Your task to perform on an android device: open chrome privacy settings Image 0: 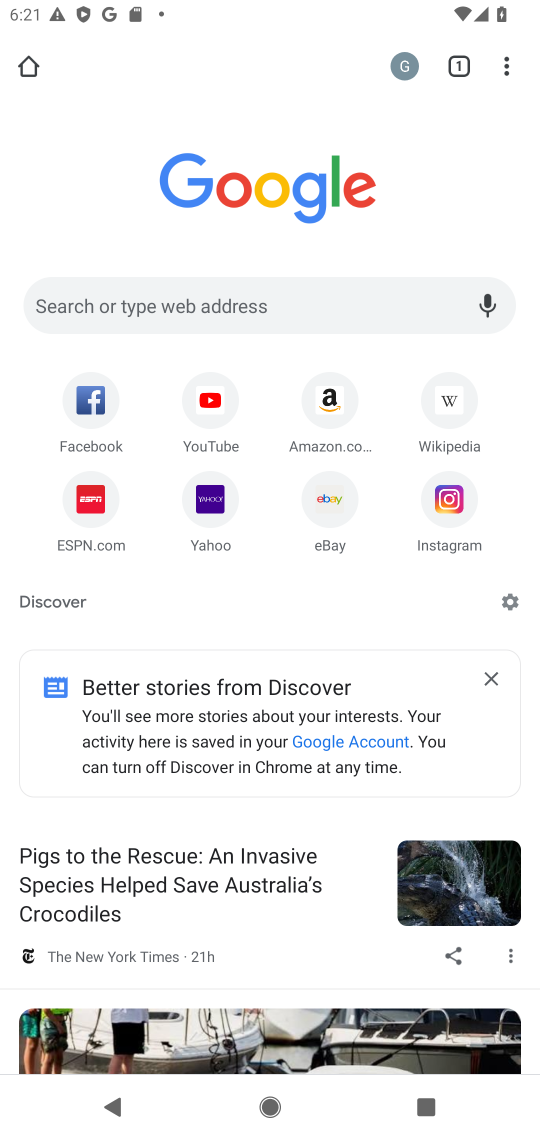
Step 0: press home button
Your task to perform on an android device: open chrome privacy settings Image 1: 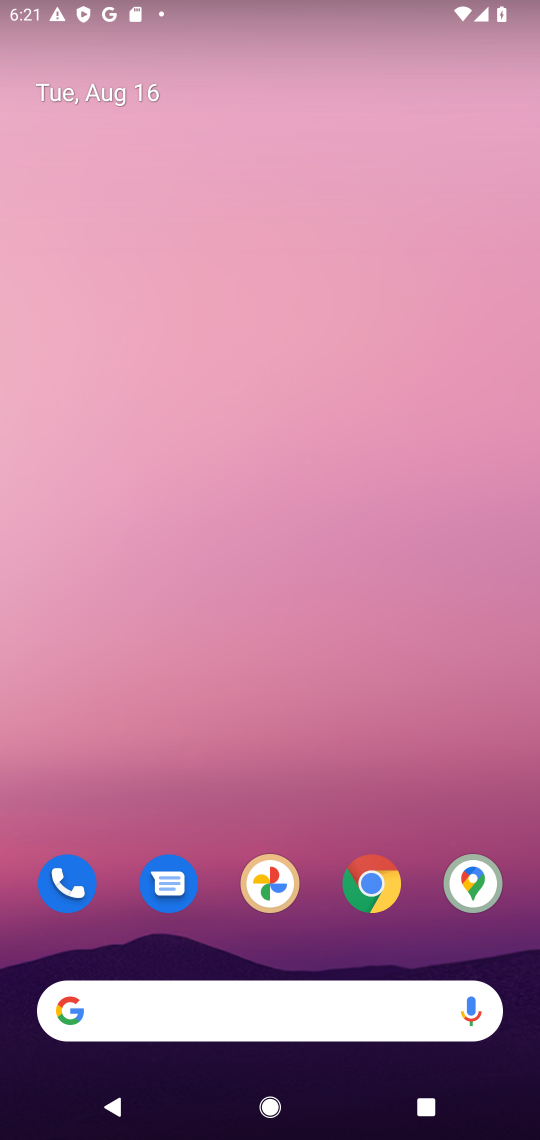
Step 1: drag from (226, 1017) to (250, 169)
Your task to perform on an android device: open chrome privacy settings Image 2: 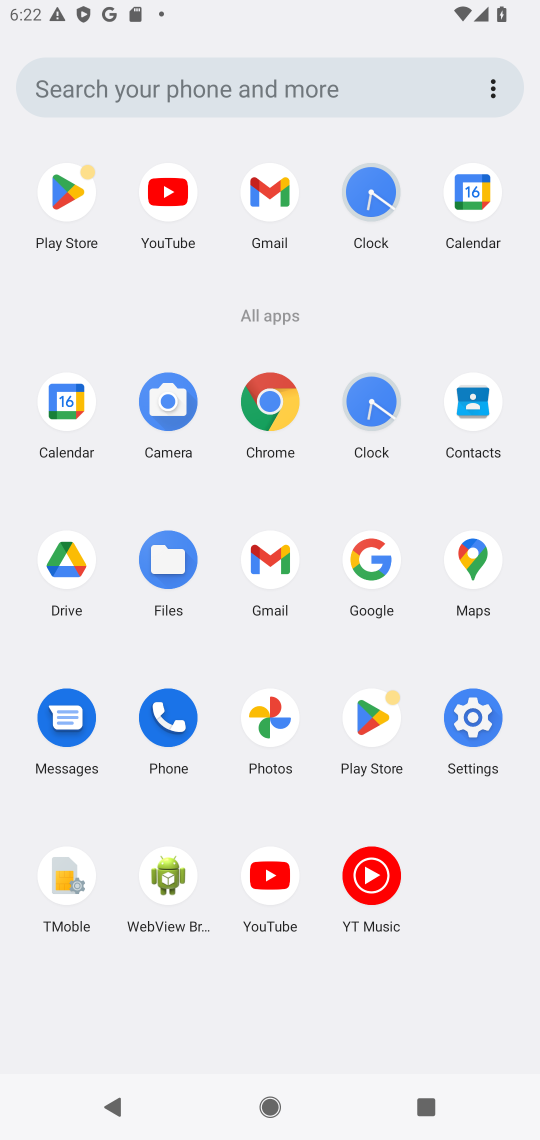
Step 2: click (268, 405)
Your task to perform on an android device: open chrome privacy settings Image 3: 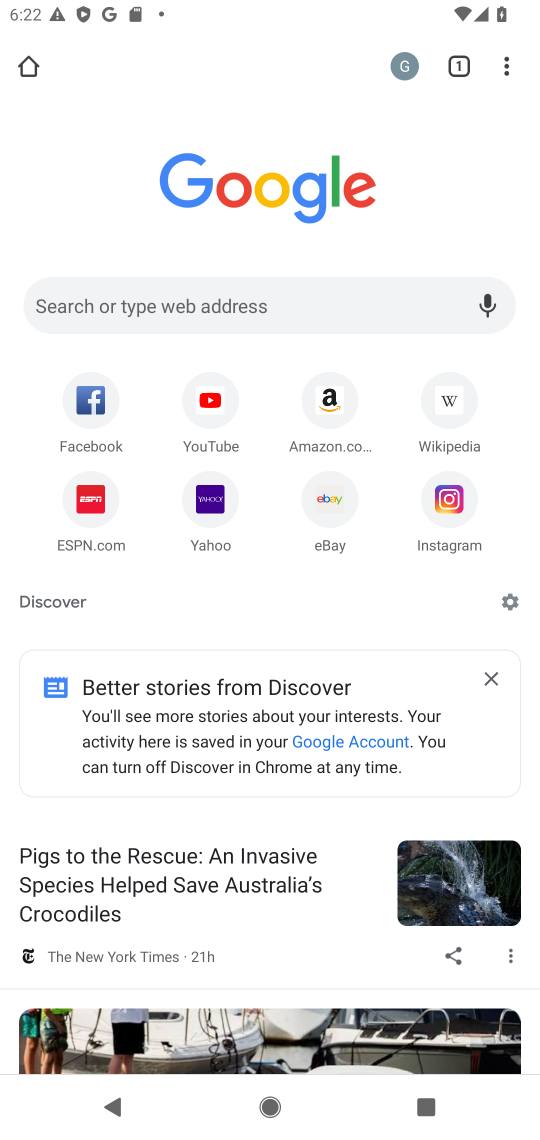
Step 3: click (512, 76)
Your task to perform on an android device: open chrome privacy settings Image 4: 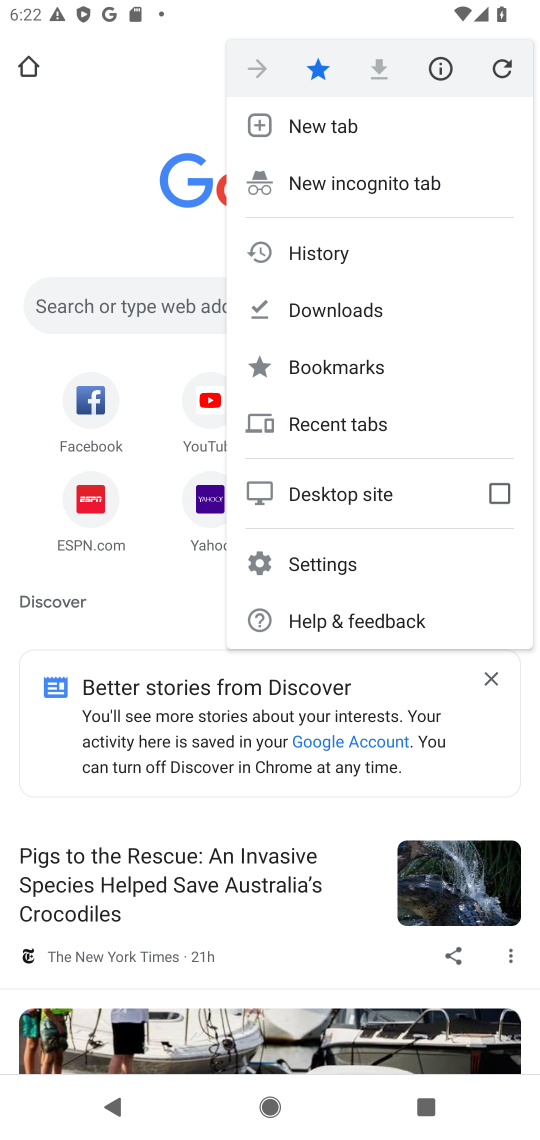
Step 4: click (338, 565)
Your task to perform on an android device: open chrome privacy settings Image 5: 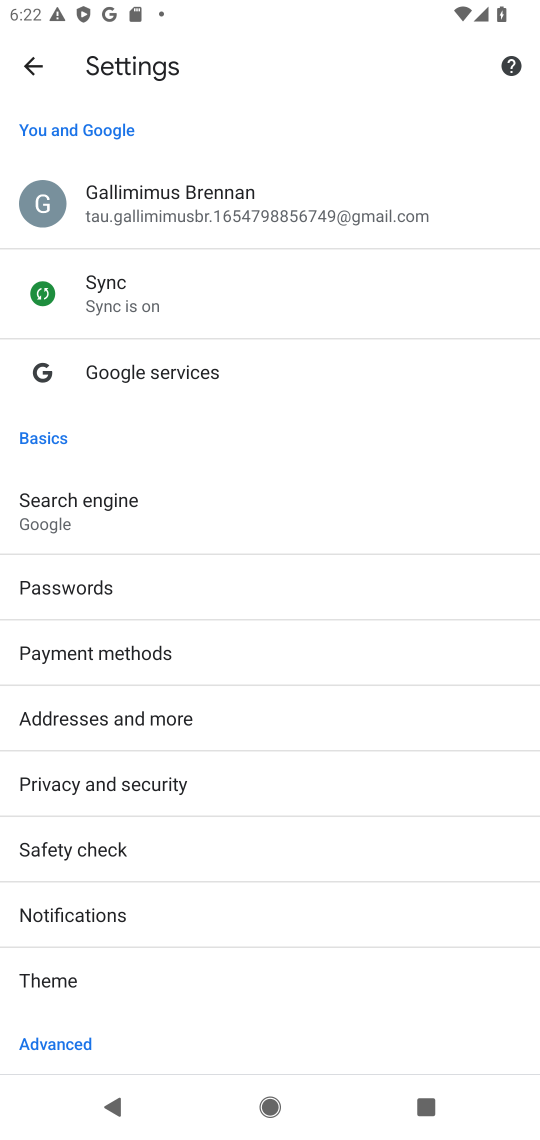
Step 5: click (174, 794)
Your task to perform on an android device: open chrome privacy settings Image 6: 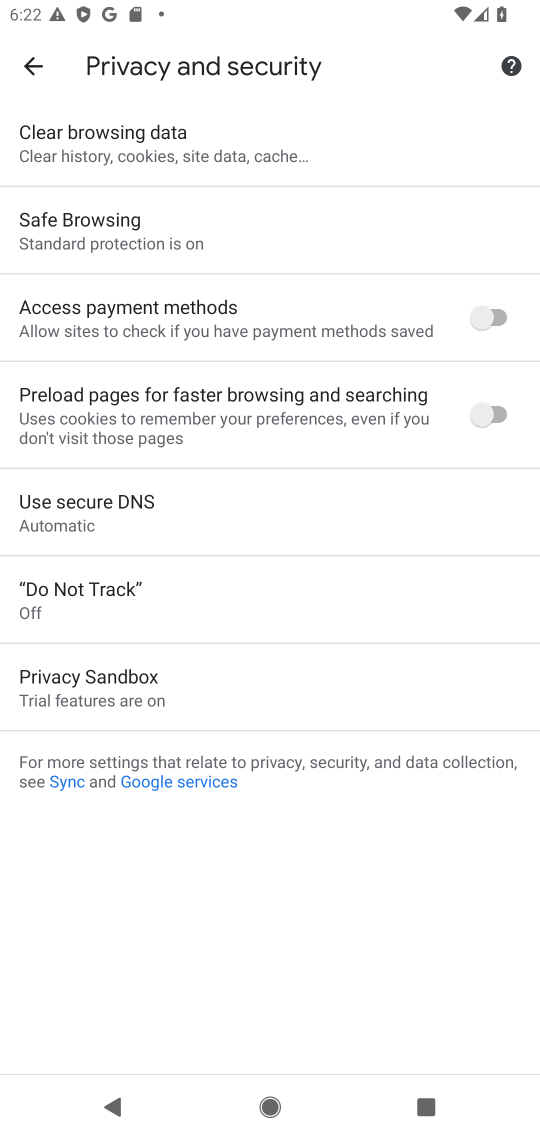
Step 6: task complete